Your task to perform on an android device: Check out the new ikea catalog. Image 0: 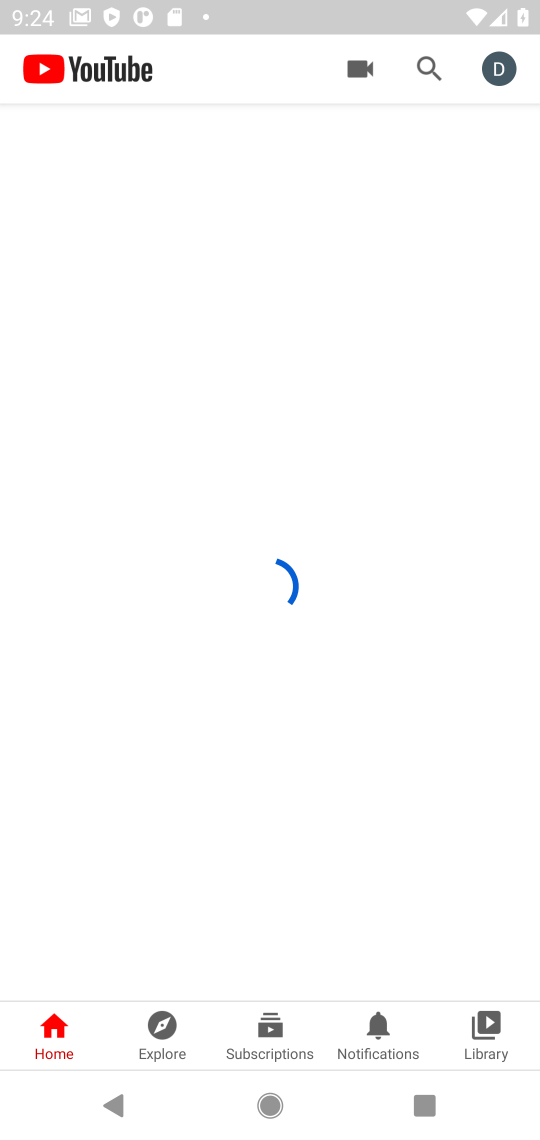
Step 0: press home button
Your task to perform on an android device: Check out the new ikea catalog. Image 1: 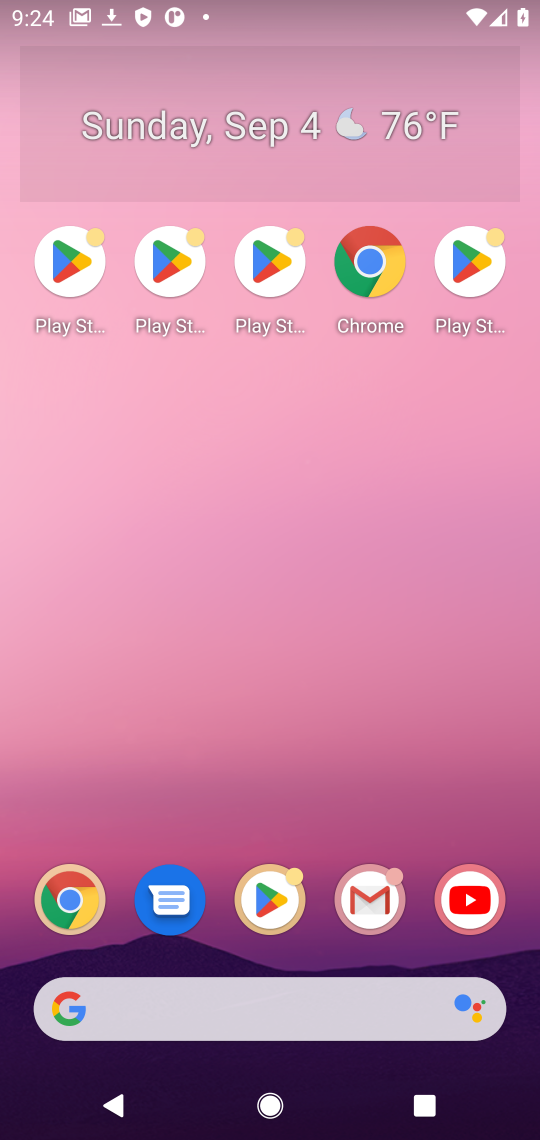
Step 1: drag from (349, 954) to (266, 110)
Your task to perform on an android device: Check out the new ikea catalog. Image 2: 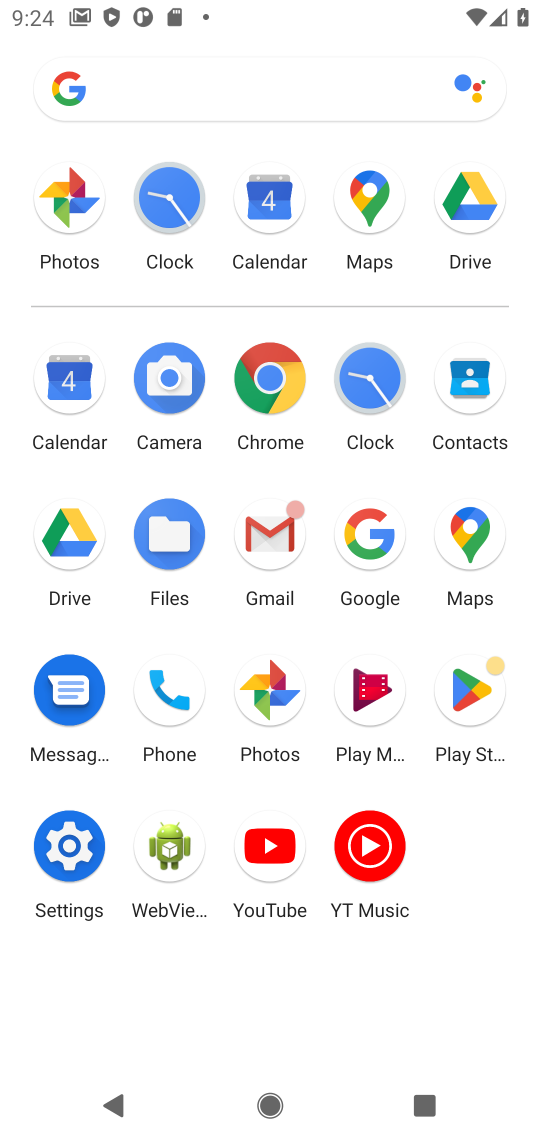
Step 2: click (254, 406)
Your task to perform on an android device: Check out the new ikea catalog. Image 3: 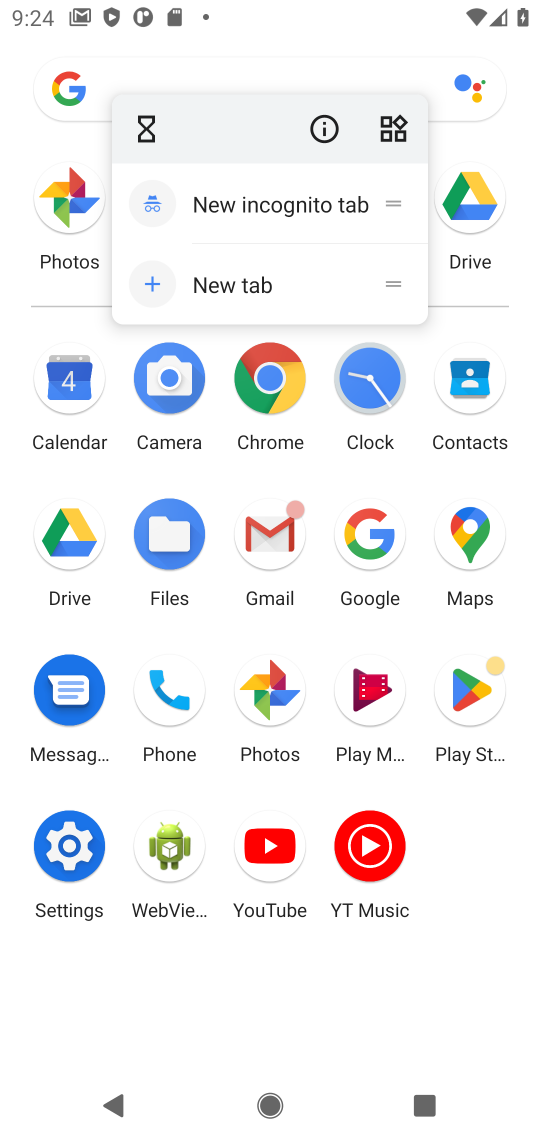
Step 3: click (283, 387)
Your task to perform on an android device: Check out the new ikea catalog. Image 4: 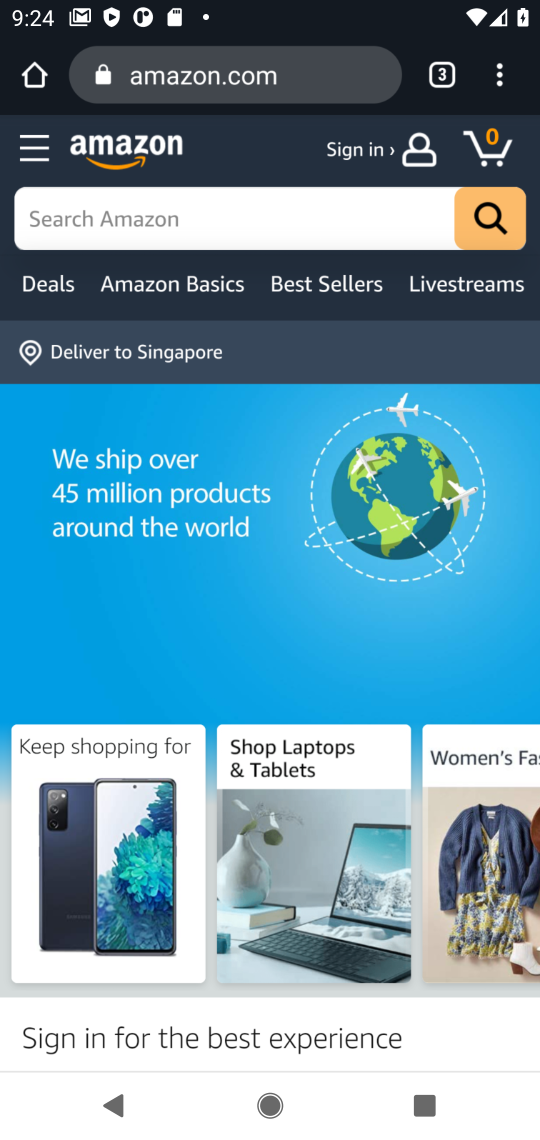
Step 4: click (472, 117)
Your task to perform on an android device: Check out the new ikea catalog. Image 5: 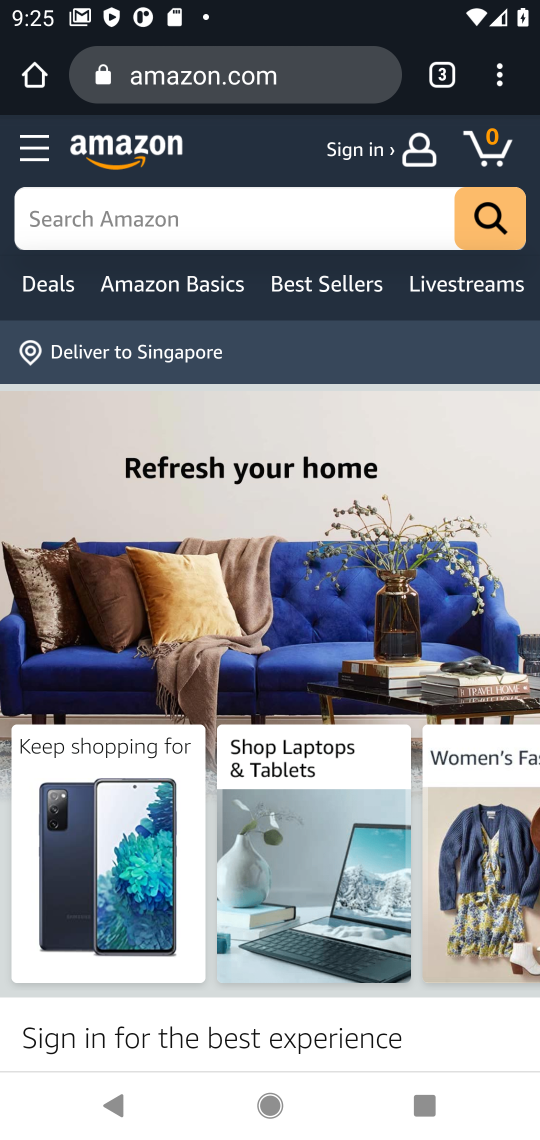
Step 5: click (441, 90)
Your task to perform on an android device: Check out the new ikea catalog. Image 6: 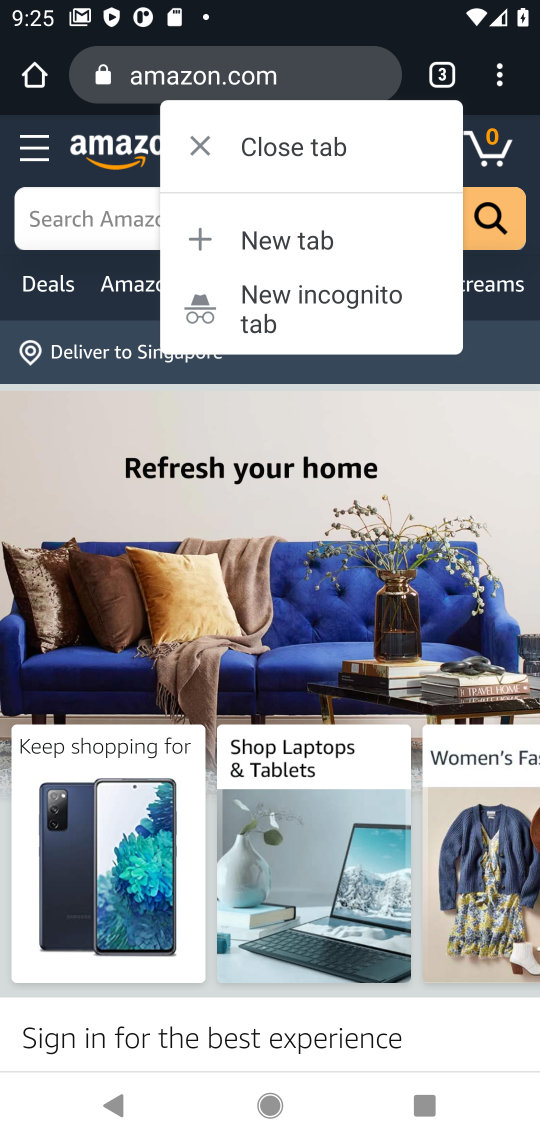
Step 6: click (299, 227)
Your task to perform on an android device: Check out the new ikea catalog. Image 7: 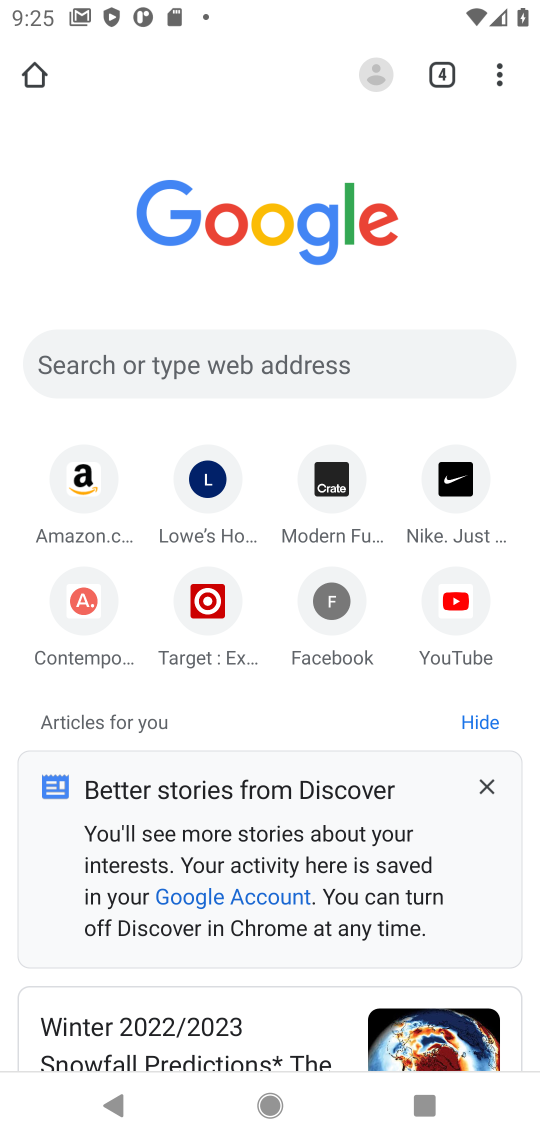
Step 7: click (91, 364)
Your task to perform on an android device: Check out the new ikea catalog. Image 8: 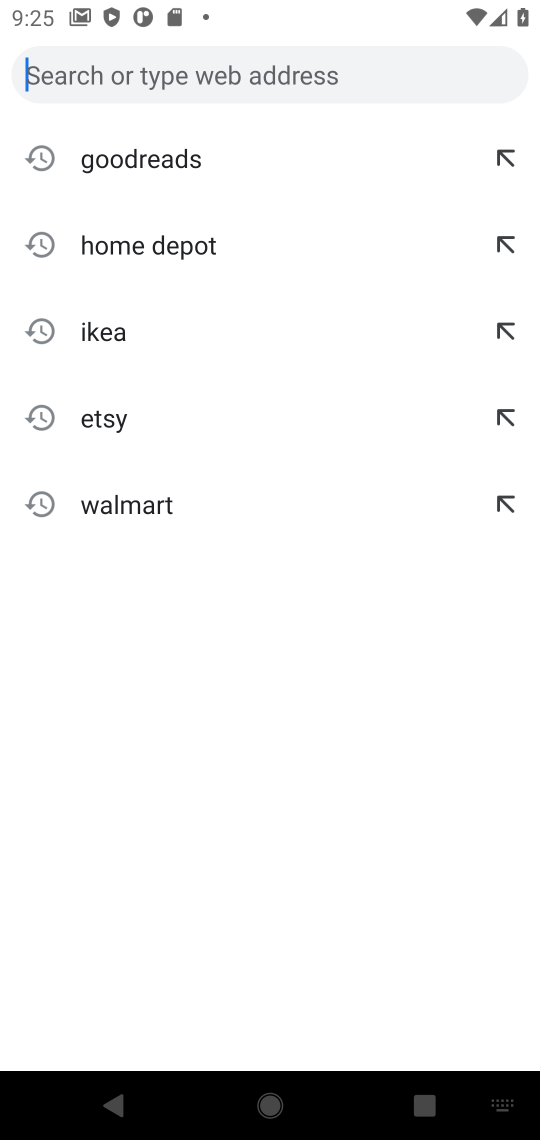
Step 8: type "the new ikea catalog"
Your task to perform on an android device: Check out the new ikea catalog. Image 9: 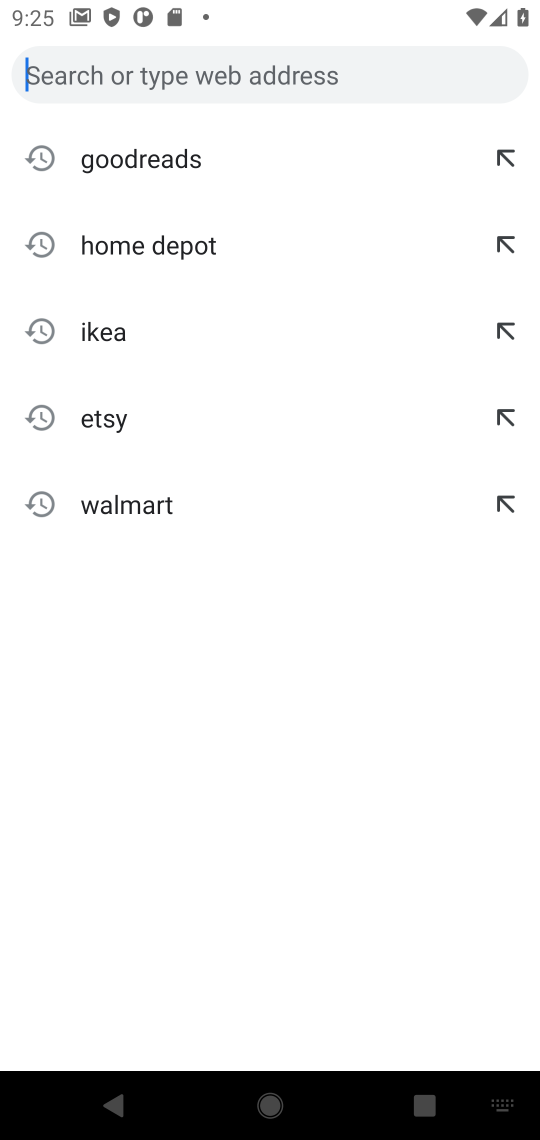
Step 9: click (117, 74)
Your task to perform on an android device: Check out the new ikea catalog. Image 10: 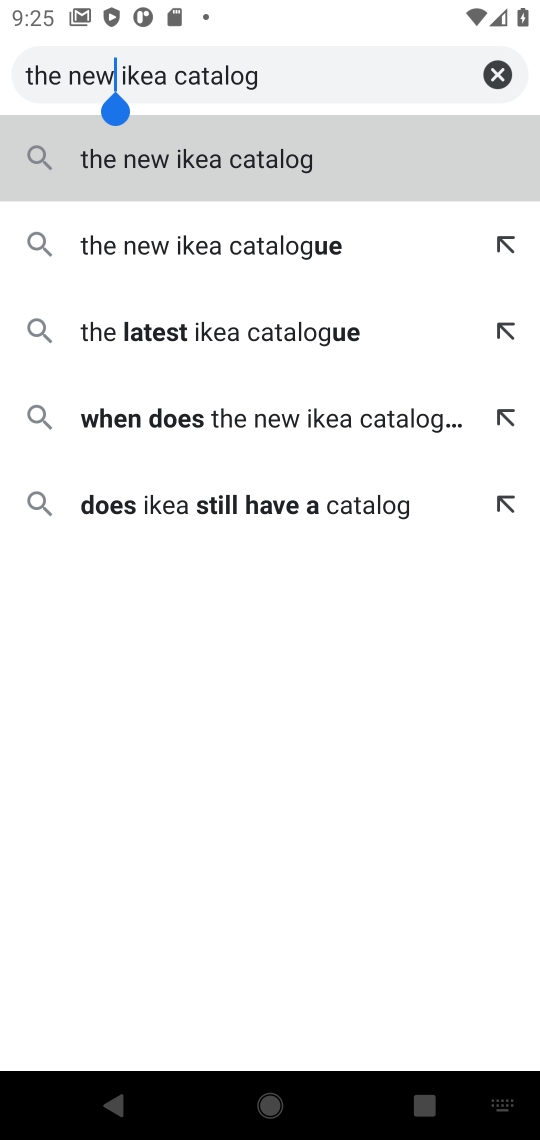
Step 10: click (208, 153)
Your task to perform on an android device: Check out the new ikea catalog. Image 11: 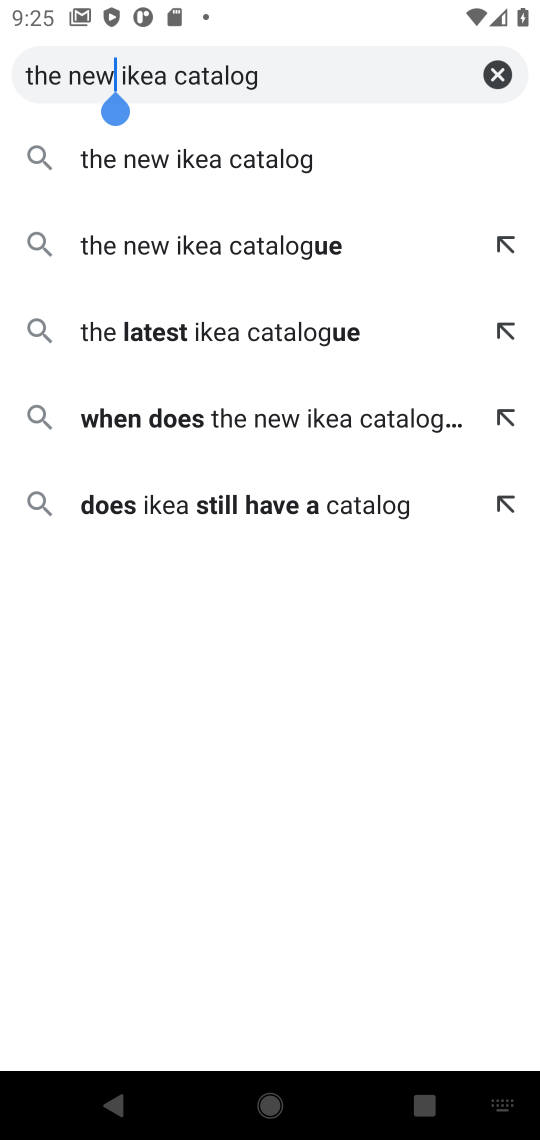
Step 11: click (242, 159)
Your task to perform on an android device: Check out the new ikea catalog. Image 12: 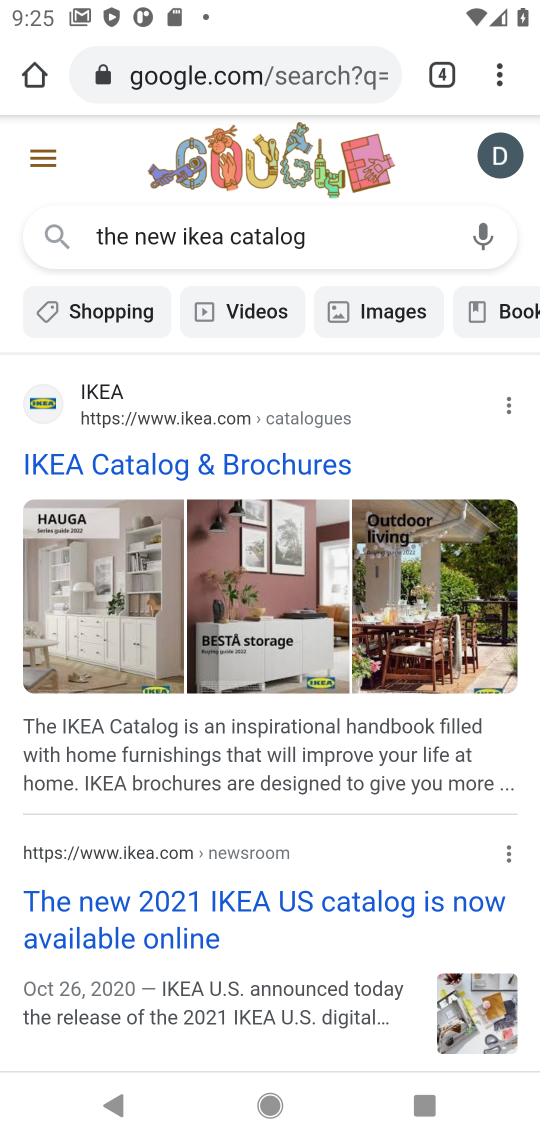
Step 12: task complete